Your task to perform on an android device: delete browsing data in the chrome app Image 0: 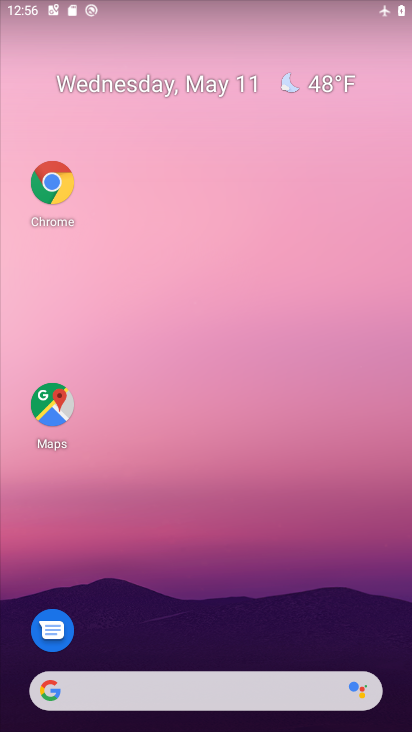
Step 0: drag from (203, 660) to (209, 36)
Your task to perform on an android device: delete browsing data in the chrome app Image 1: 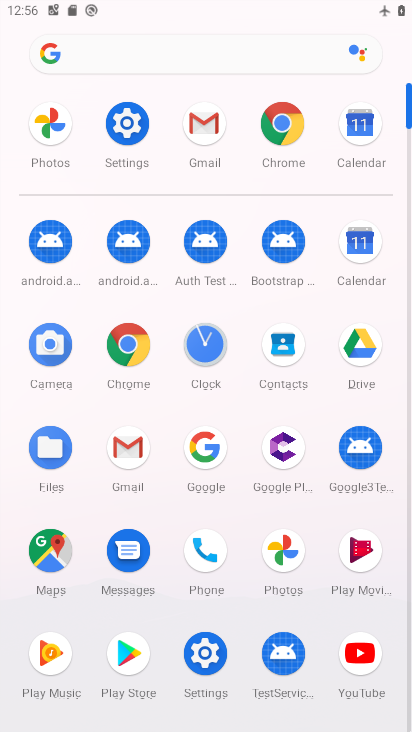
Step 1: click (131, 334)
Your task to perform on an android device: delete browsing data in the chrome app Image 2: 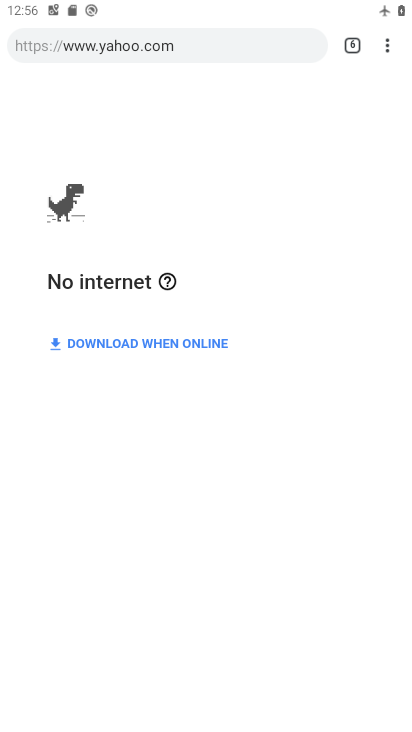
Step 2: click (385, 45)
Your task to perform on an android device: delete browsing data in the chrome app Image 3: 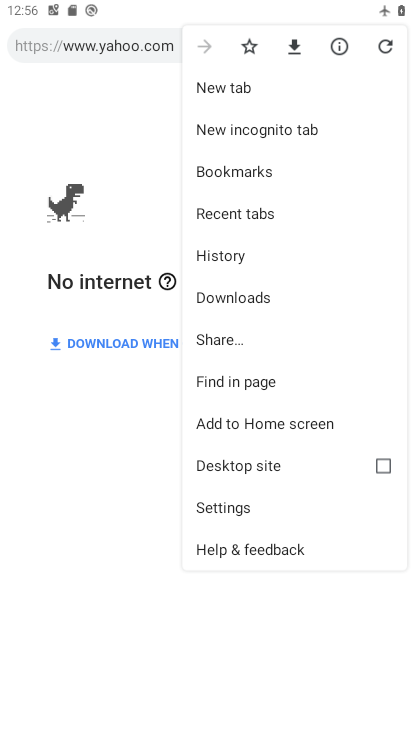
Step 3: click (252, 167)
Your task to perform on an android device: delete browsing data in the chrome app Image 4: 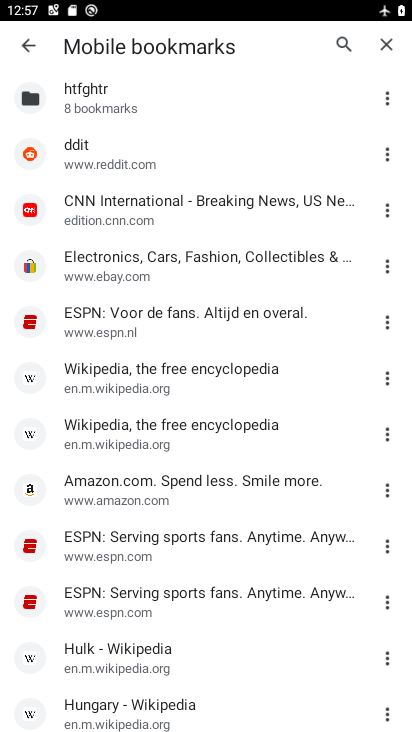
Step 4: drag from (98, 120) to (97, 28)
Your task to perform on an android device: delete browsing data in the chrome app Image 5: 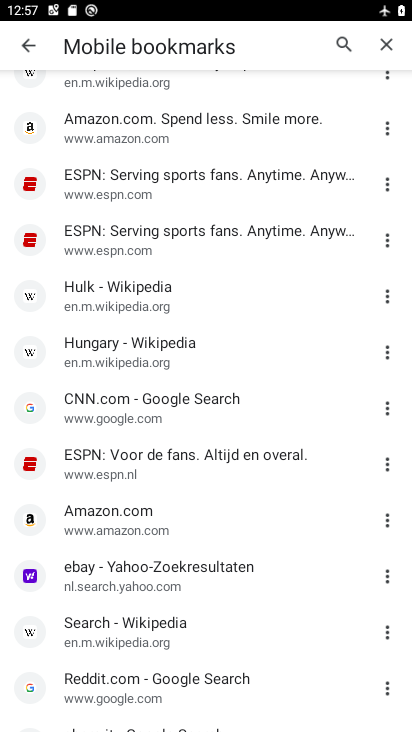
Step 5: drag from (168, 587) to (183, 261)
Your task to perform on an android device: delete browsing data in the chrome app Image 6: 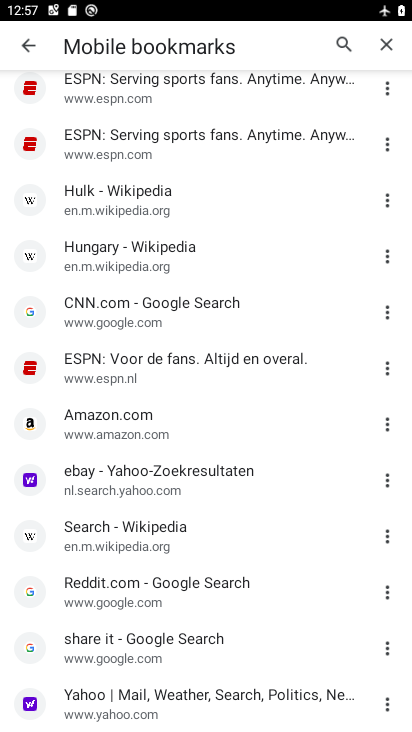
Step 6: click (34, 46)
Your task to perform on an android device: delete browsing data in the chrome app Image 7: 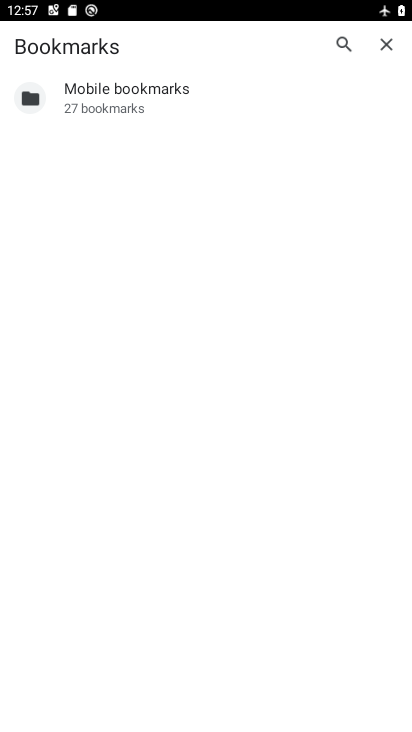
Step 7: click (389, 43)
Your task to perform on an android device: delete browsing data in the chrome app Image 8: 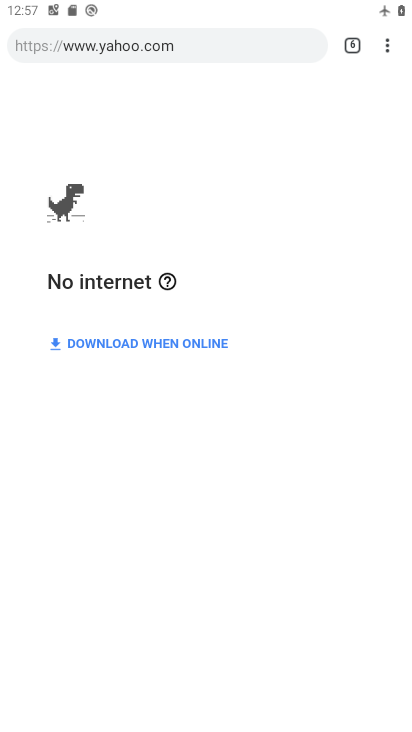
Step 8: click (378, 45)
Your task to perform on an android device: delete browsing data in the chrome app Image 9: 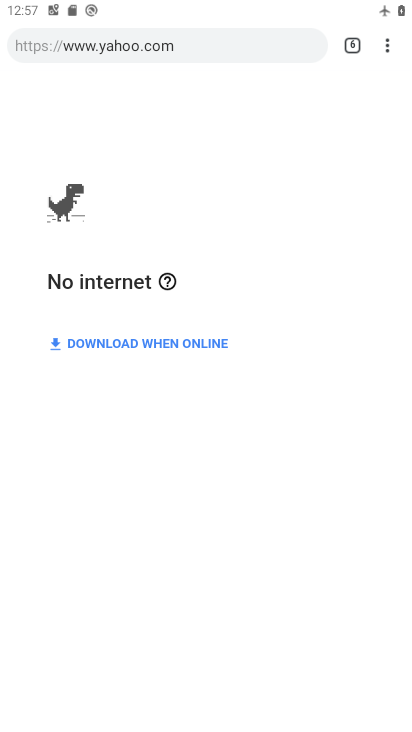
Step 9: drag from (386, 43) to (211, 253)
Your task to perform on an android device: delete browsing data in the chrome app Image 10: 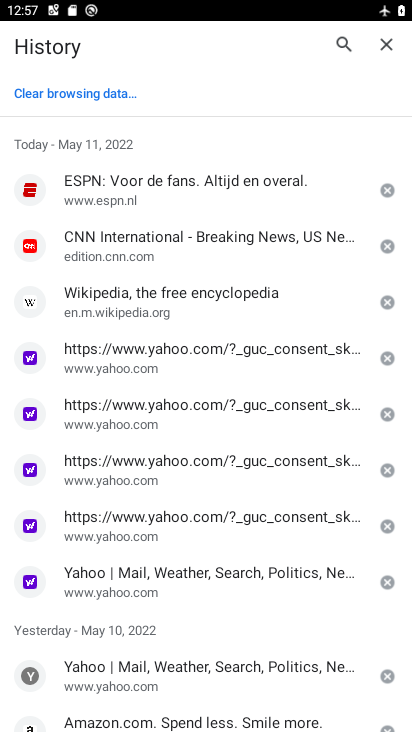
Step 10: click (67, 87)
Your task to perform on an android device: delete browsing data in the chrome app Image 11: 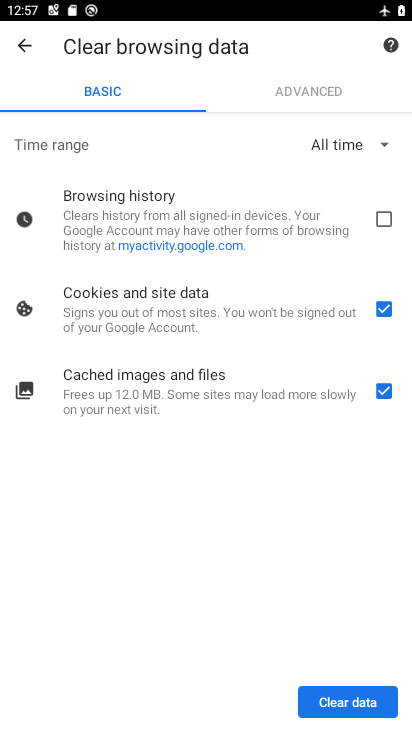
Step 11: click (342, 683)
Your task to perform on an android device: delete browsing data in the chrome app Image 12: 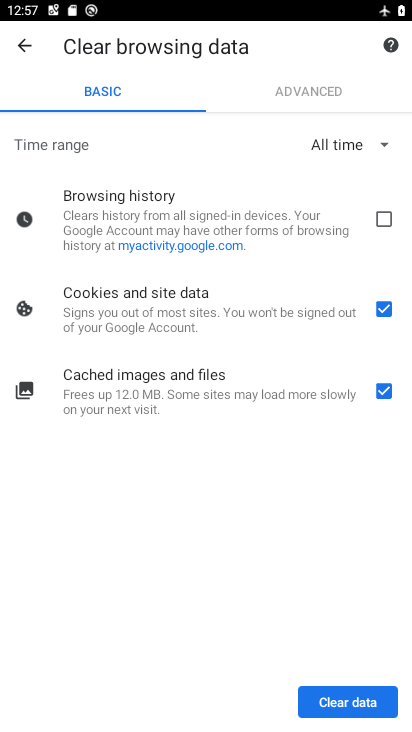
Step 12: task complete